Your task to perform on an android device: install app "Flipkart Online Shopping App" Image 0: 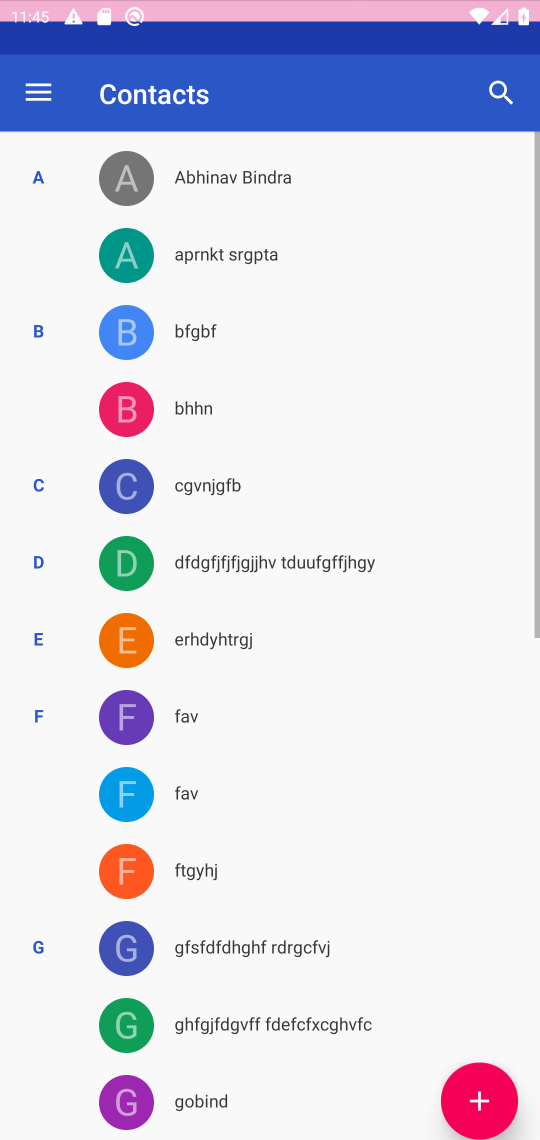
Step 0: press home button
Your task to perform on an android device: install app "Flipkart Online Shopping App" Image 1: 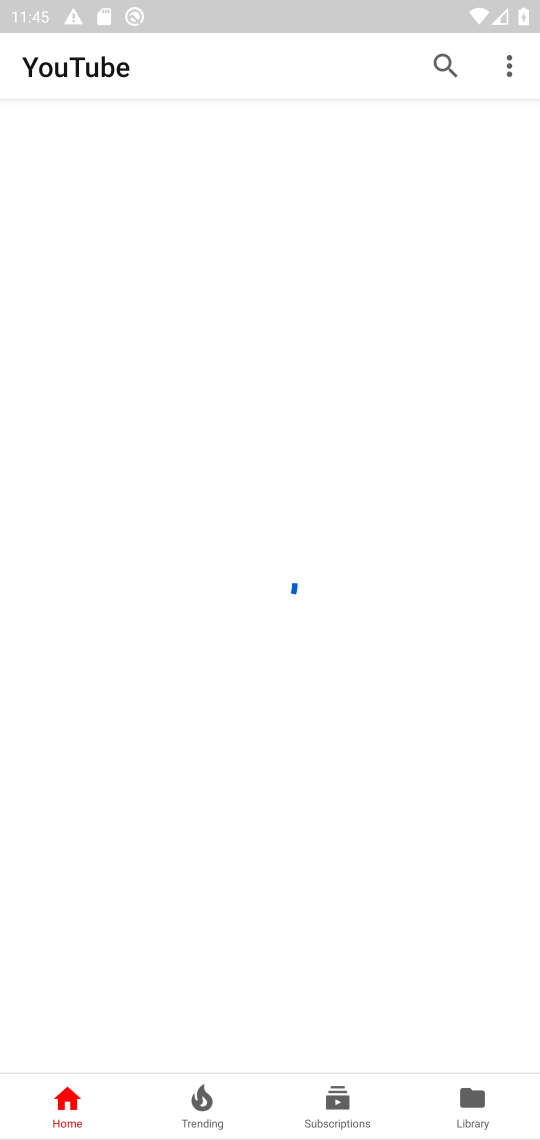
Step 1: press home button
Your task to perform on an android device: install app "Flipkart Online Shopping App" Image 2: 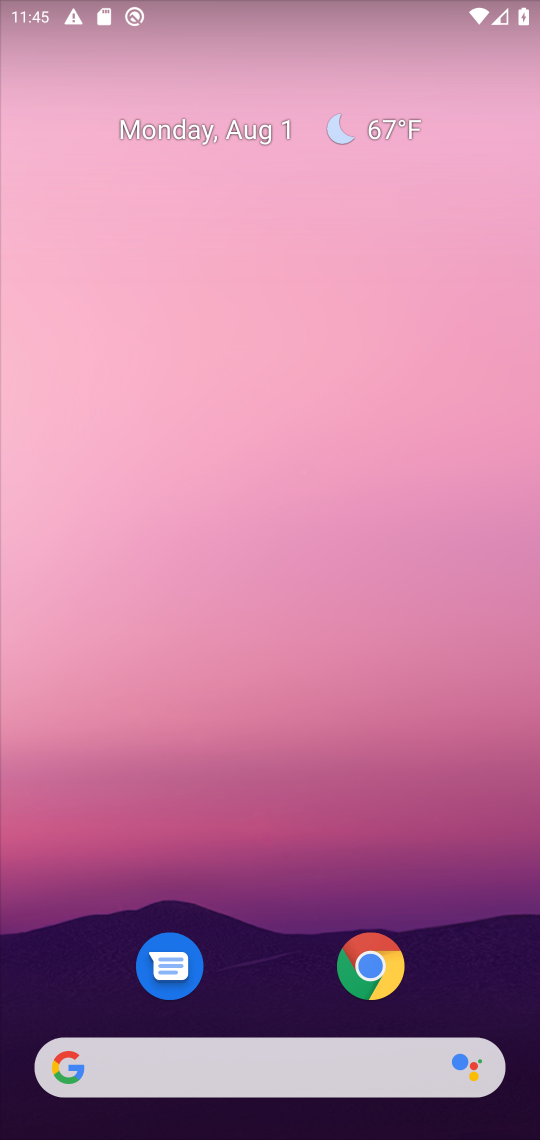
Step 2: drag from (456, 1005) to (455, 154)
Your task to perform on an android device: install app "Flipkart Online Shopping App" Image 3: 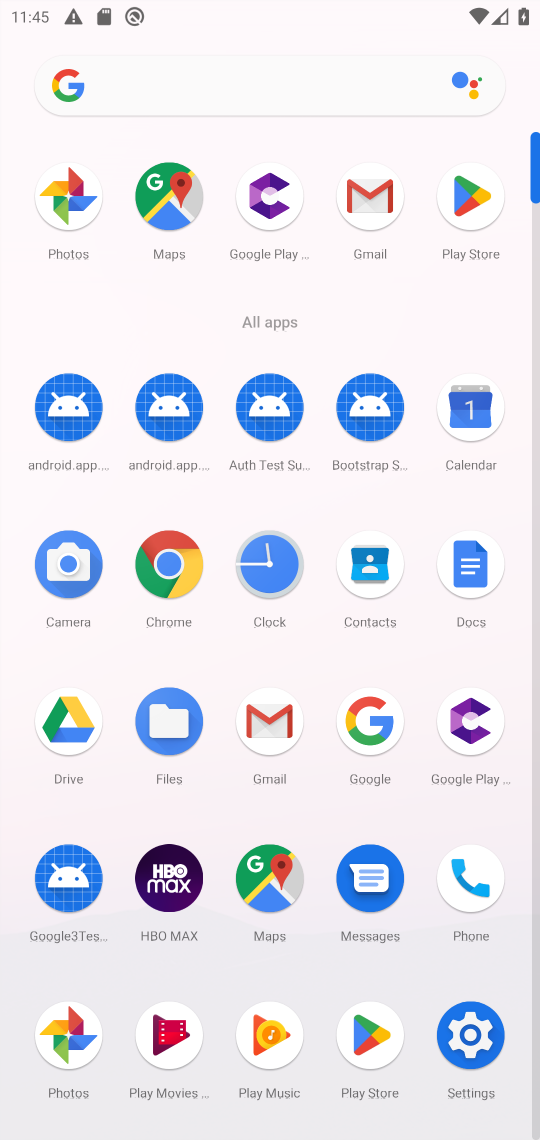
Step 3: click (373, 1045)
Your task to perform on an android device: install app "Flipkart Online Shopping App" Image 4: 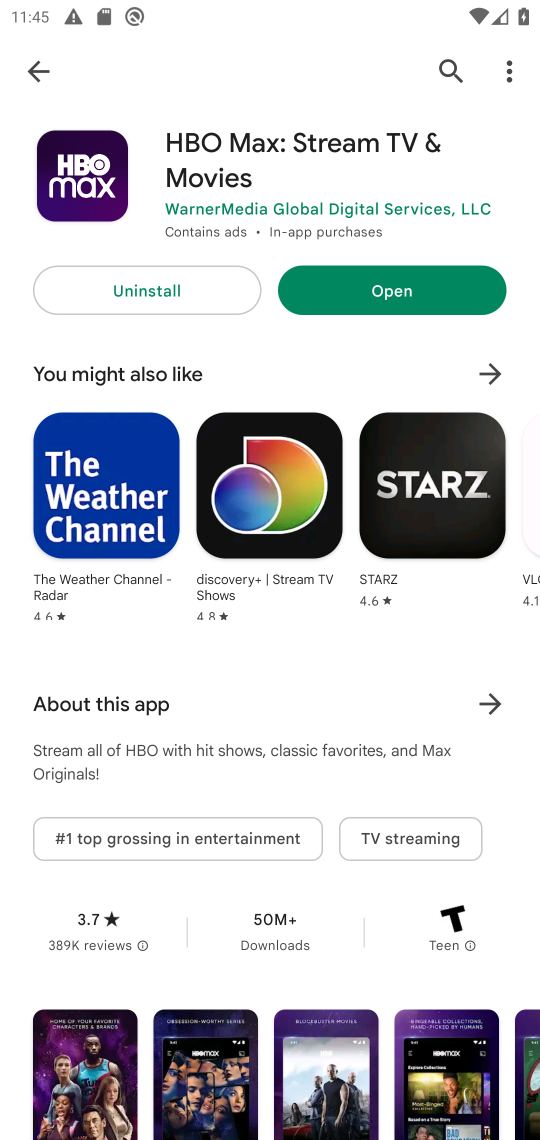
Step 4: click (448, 65)
Your task to perform on an android device: install app "Flipkart Online Shopping App" Image 5: 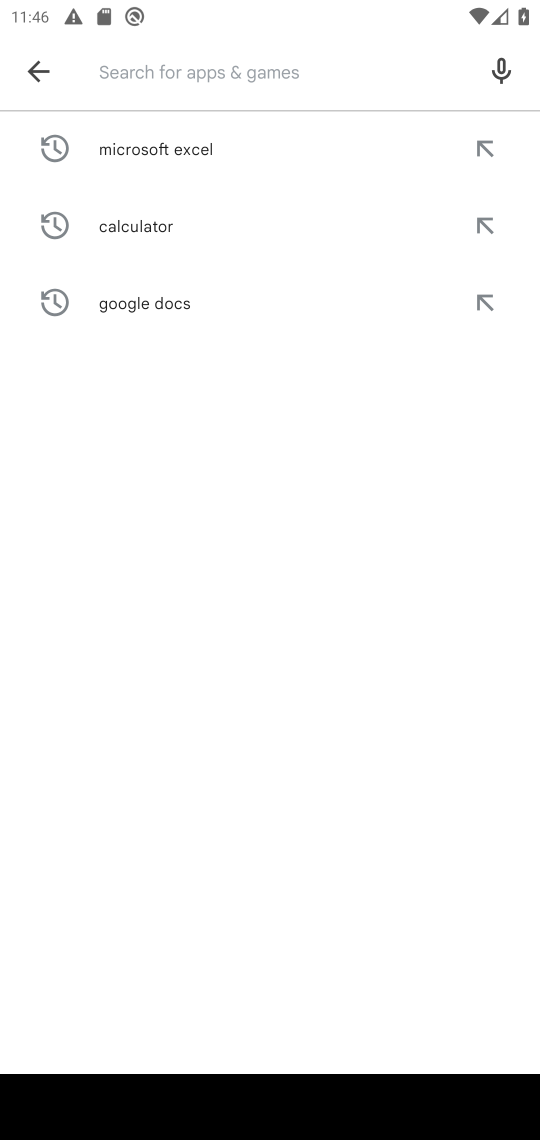
Step 5: type "Flipkart Online Shopping App"
Your task to perform on an android device: install app "Flipkart Online Shopping App" Image 6: 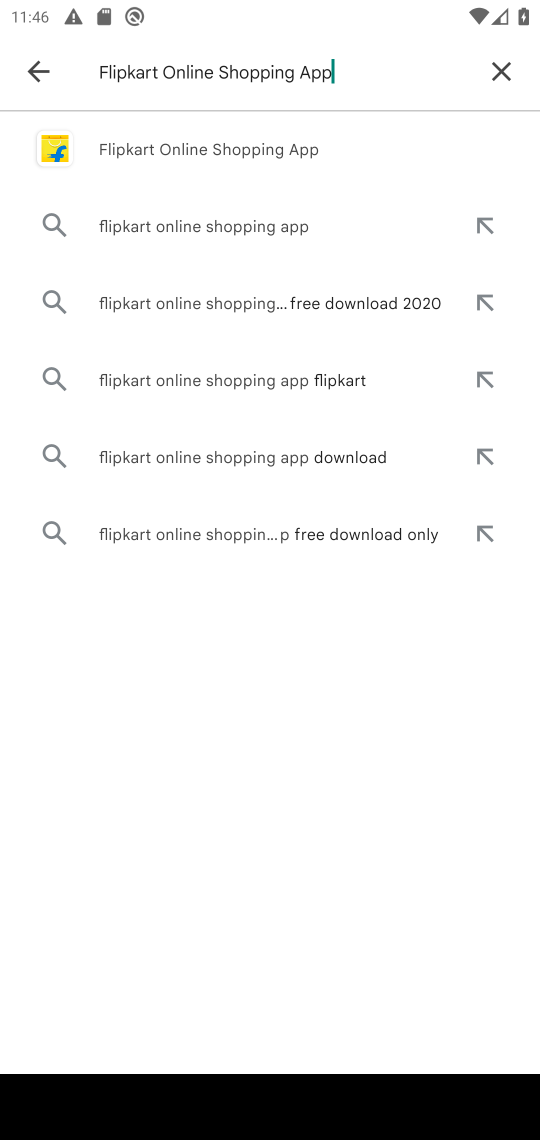
Step 6: click (245, 158)
Your task to perform on an android device: install app "Flipkart Online Shopping App" Image 7: 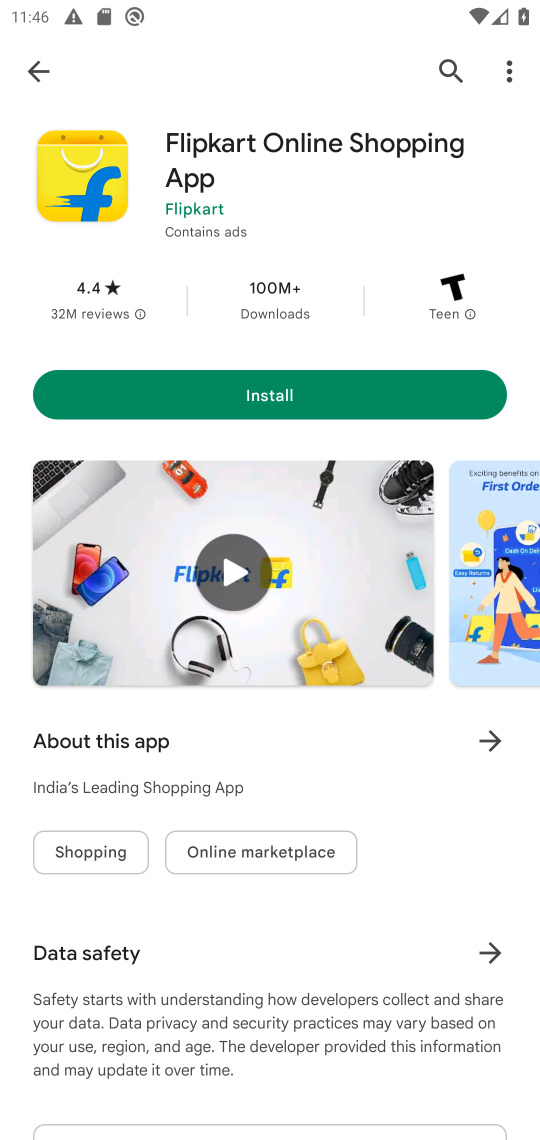
Step 7: click (402, 394)
Your task to perform on an android device: install app "Flipkart Online Shopping App" Image 8: 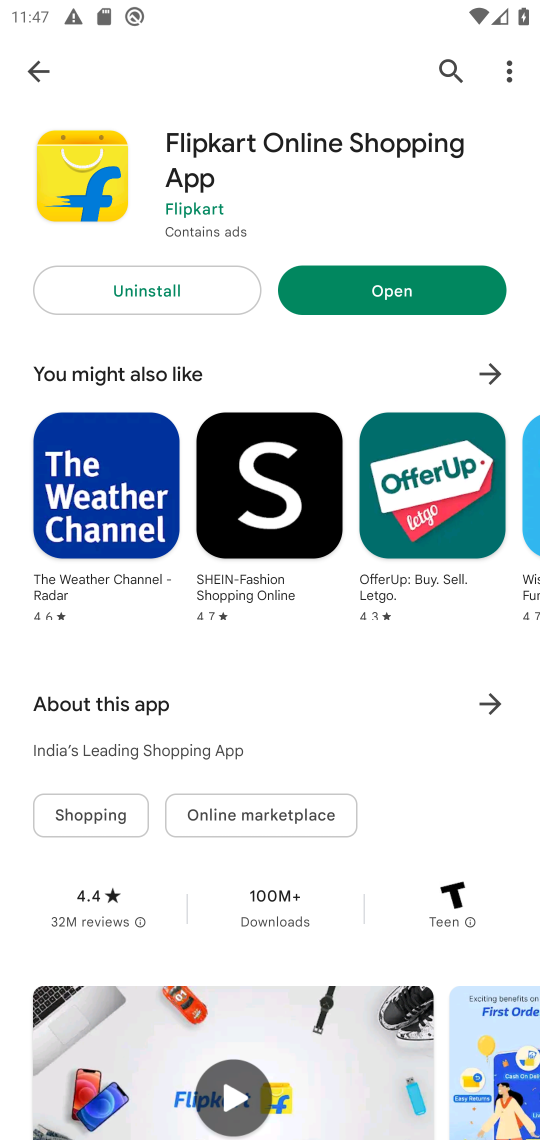
Step 8: task complete